Your task to perform on an android device: What's the weather going to be this weekend? Image 0: 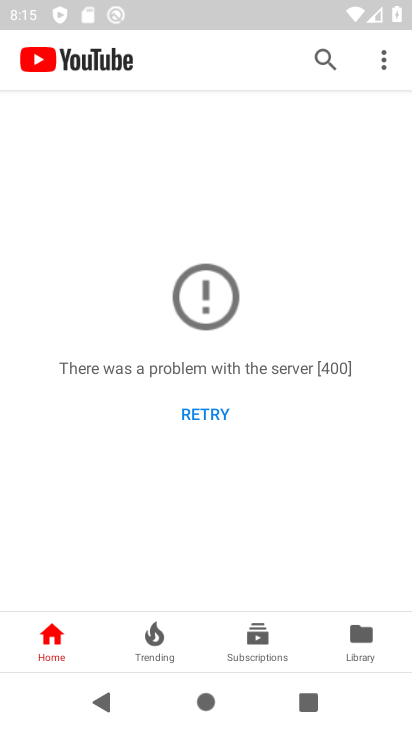
Step 0: press home button
Your task to perform on an android device: What's the weather going to be this weekend? Image 1: 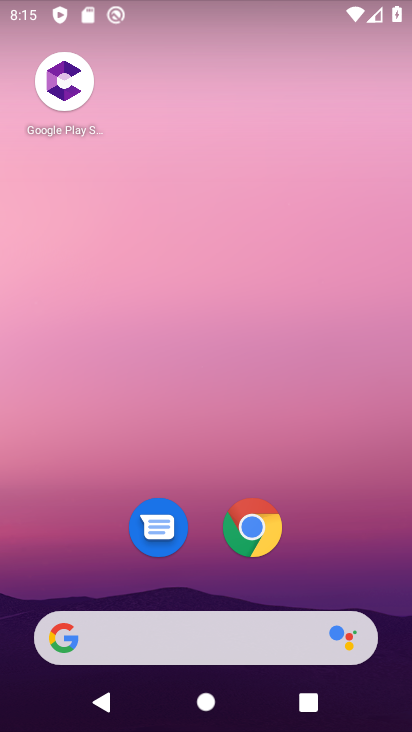
Step 1: click (143, 639)
Your task to perform on an android device: What's the weather going to be this weekend? Image 2: 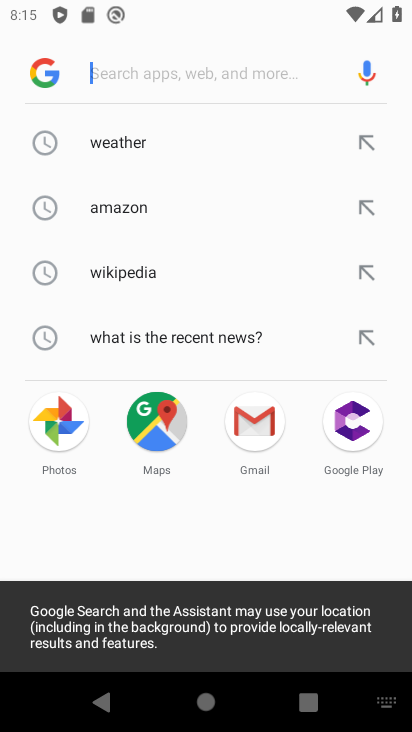
Step 2: type "what's the weather going to be this weekend"
Your task to perform on an android device: What's the weather going to be this weekend? Image 3: 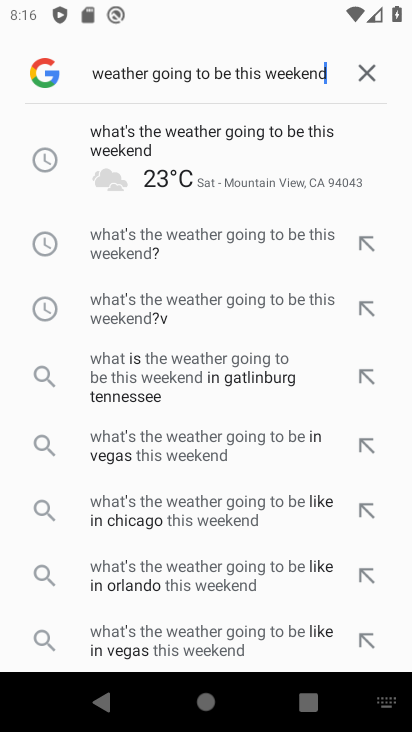
Step 3: click (206, 155)
Your task to perform on an android device: What's the weather going to be this weekend? Image 4: 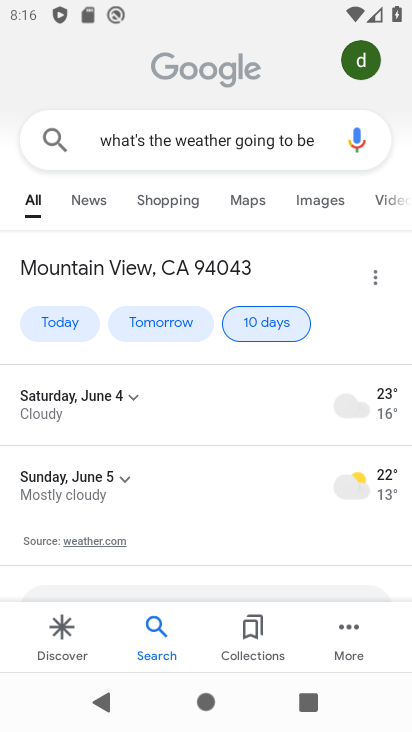
Step 4: task complete